Your task to perform on an android device: Open notification settings Image 0: 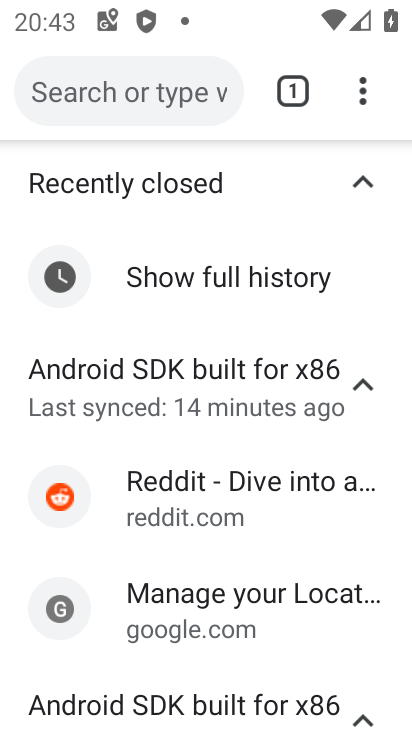
Step 0: press home button
Your task to perform on an android device: Open notification settings Image 1: 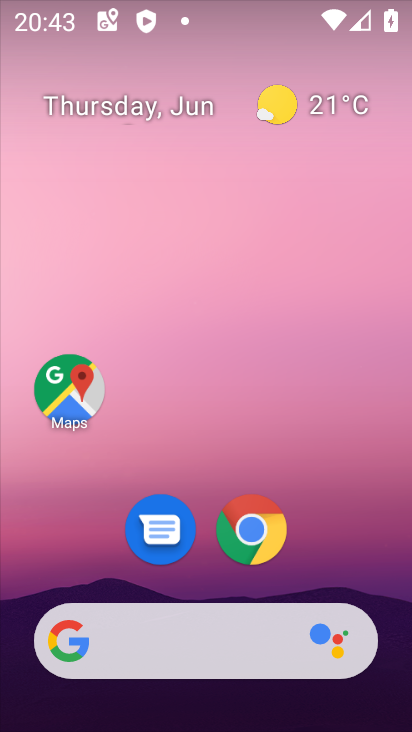
Step 1: drag from (336, 502) to (192, 68)
Your task to perform on an android device: Open notification settings Image 2: 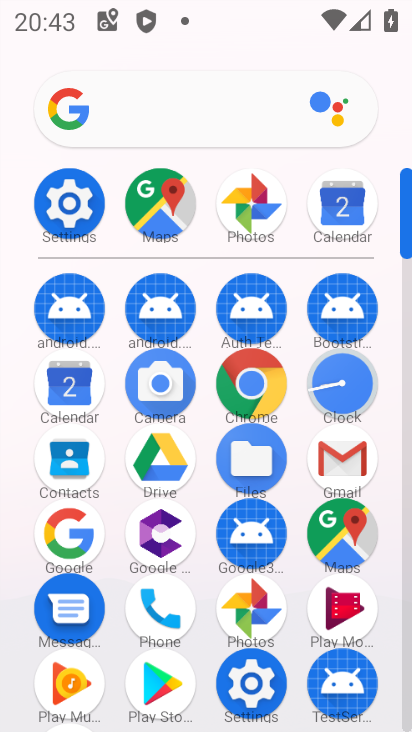
Step 2: click (71, 201)
Your task to perform on an android device: Open notification settings Image 3: 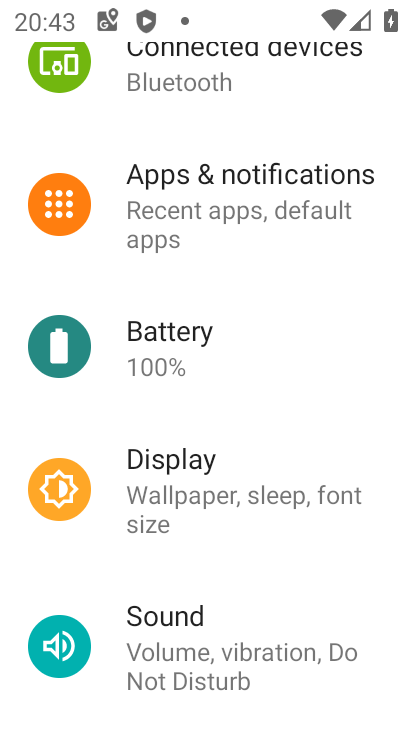
Step 3: click (233, 174)
Your task to perform on an android device: Open notification settings Image 4: 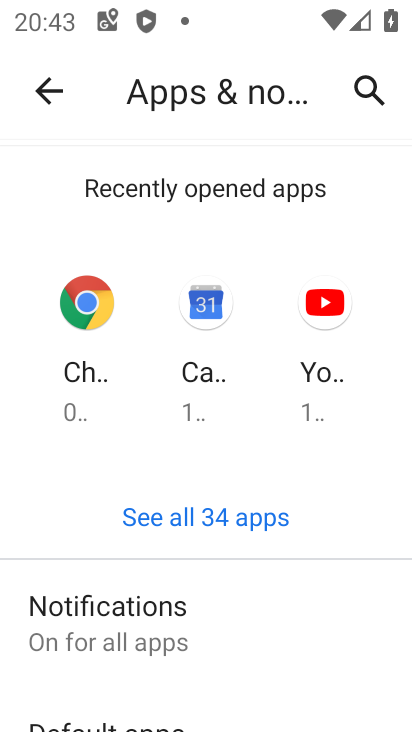
Step 4: task complete